Your task to perform on an android device: turn on improve location accuracy Image 0: 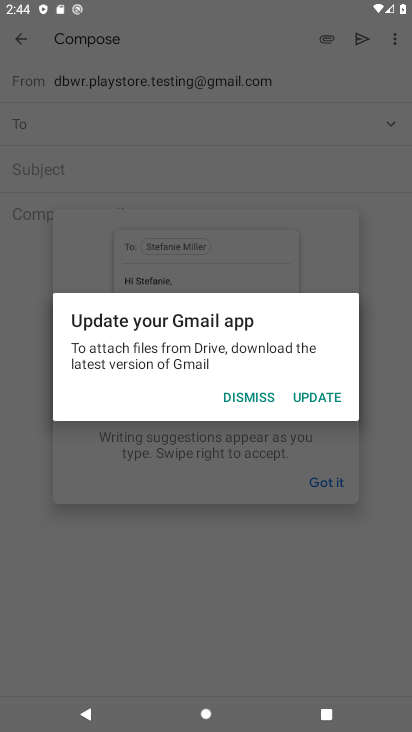
Step 0: press home button
Your task to perform on an android device: turn on improve location accuracy Image 1: 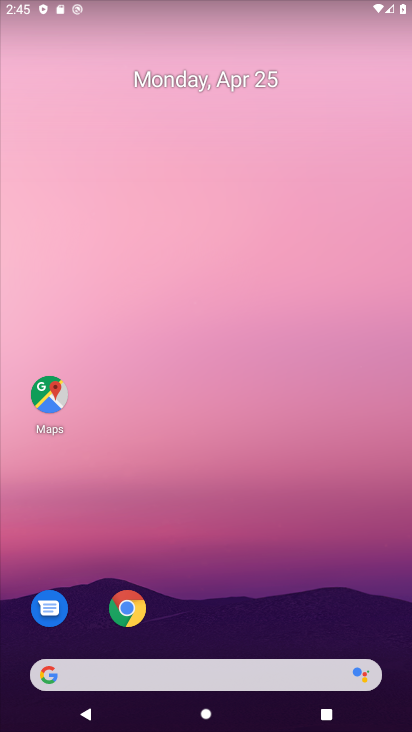
Step 1: drag from (169, 673) to (149, 33)
Your task to perform on an android device: turn on improve location accuracy Image 2: 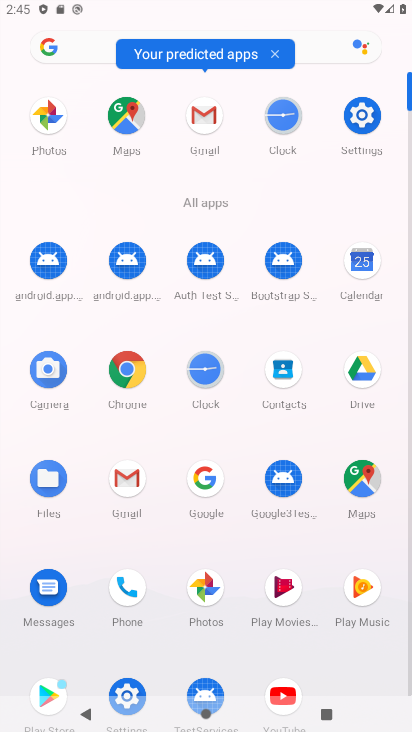
Step 2: click (131, 674)
Your task to perform on an android device: turn on improve location accuracy Image 3: 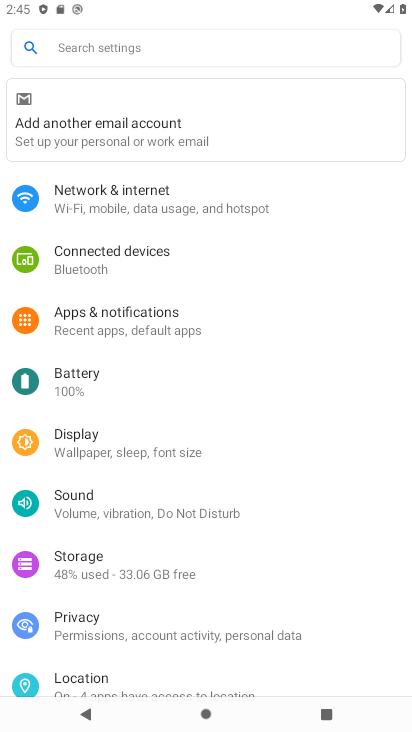
Step 3: click (120, 670)
Your task to perform on an android device: turn on improve location accuracy Image 4: 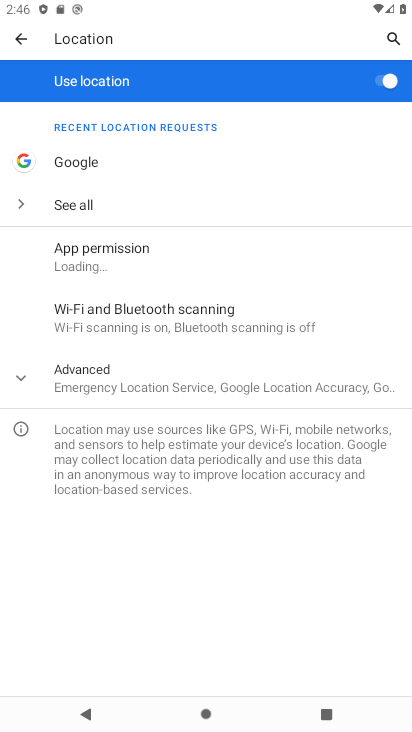
Step 4: click (145, 367)
Your task to perform on an android device: turn on improve location accuracy Image 5: 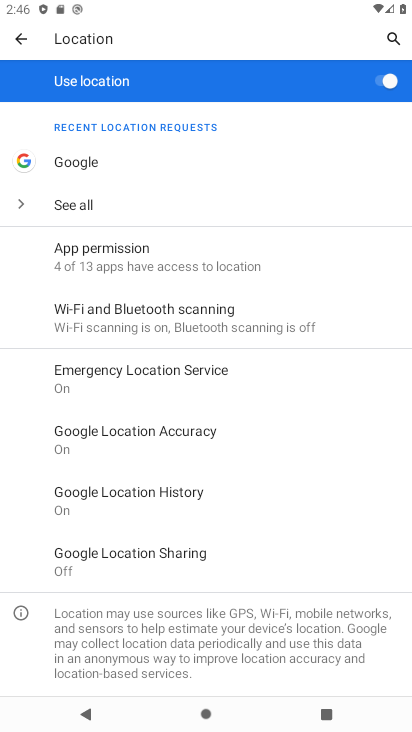
Step 5: click (169, 431)
Your task to perform on an android device: turn on improve location accuracy Image 6: 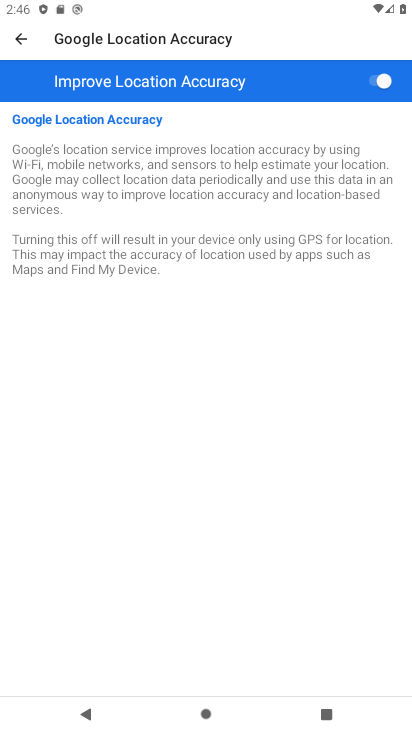
Step 6: task complete